Your task to perform on an android device: toggle location history Image 0: 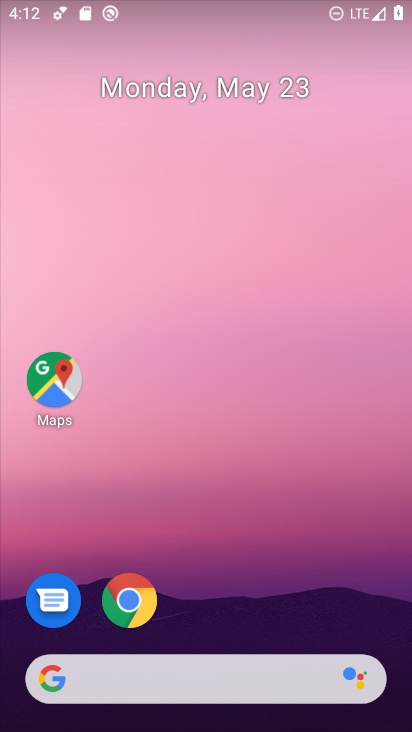
Step 0: click (50, 386)
Your task to perform on an android device: toggle location history Image 1: 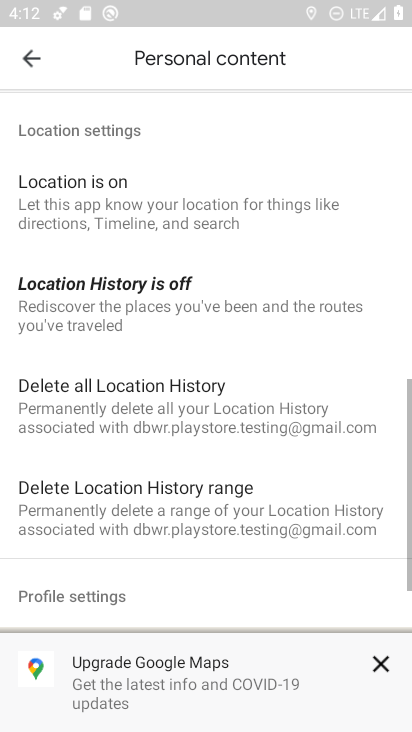
Step 1: click (97, 310)
Your task to perform on an android device: toggle location history Image 2: 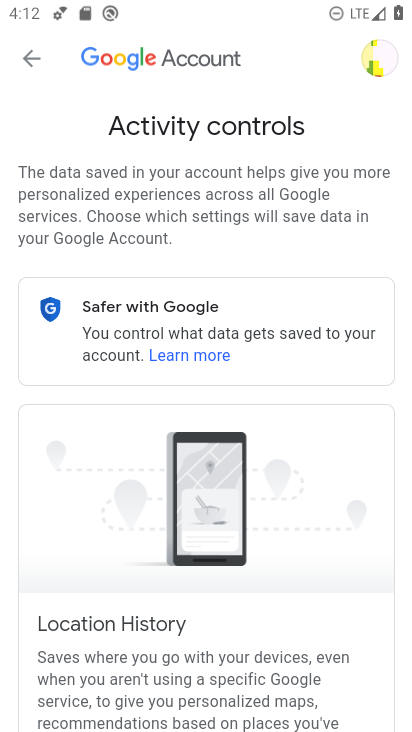
Step 2: drag from (216, 546) to (213, 122)
Your task to perform on an android device: toggle location history Image 3: 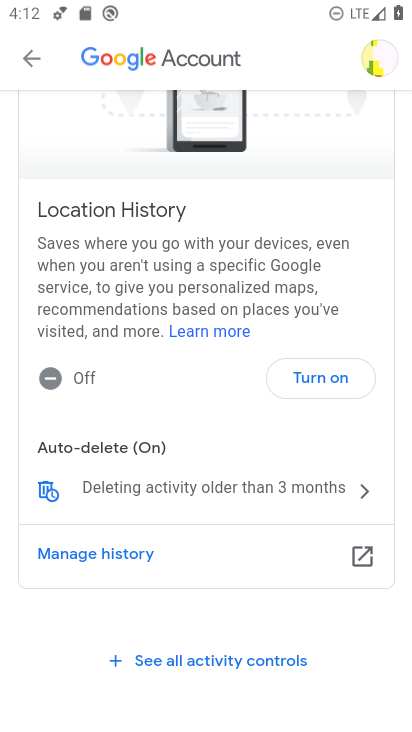
Step 3: click (308, 386)
Your task to perform on an android device: toggle location history Image 4: 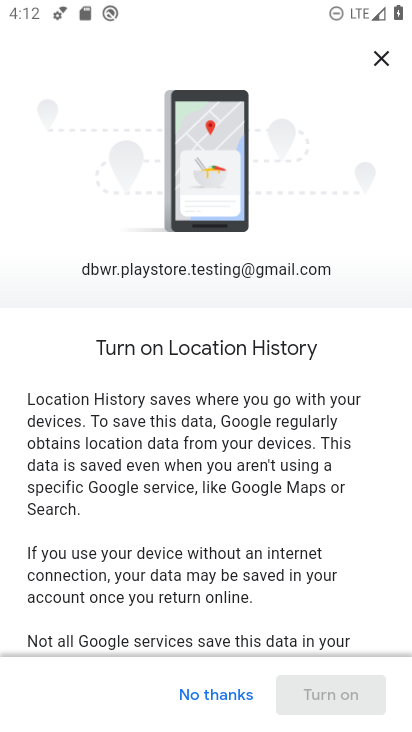
Step 4: drag from (202, 558) to (165, 18)
Your task to perform on an android device: toggle location history Image 5: 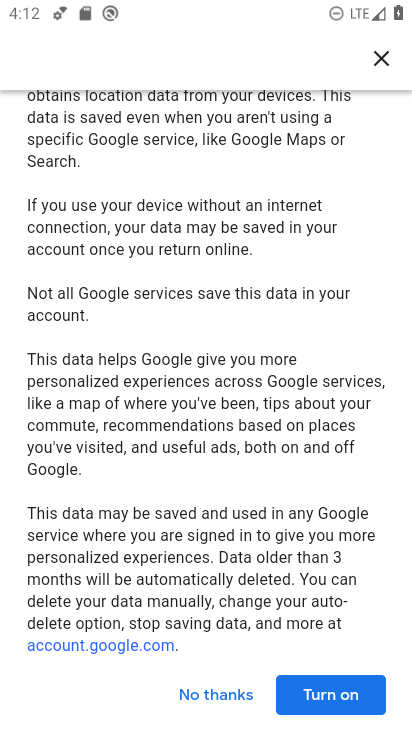
Step 5: click (315, 698)
Your task to perform on an android device: toggle location history Image 6: 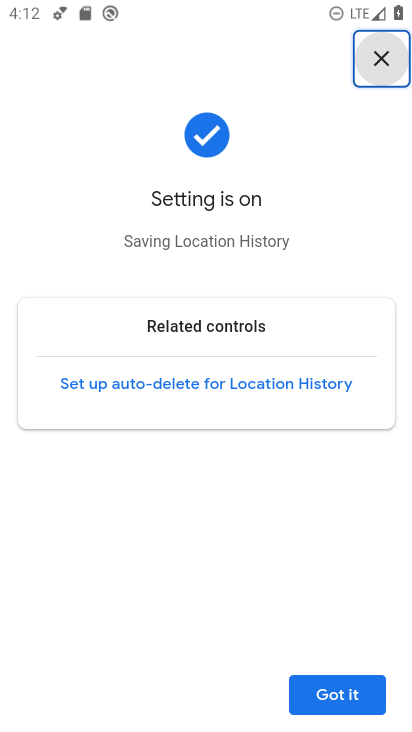
Step 6: click (335, 697)
Your task to perform on an android device: toggle location history Image 7: 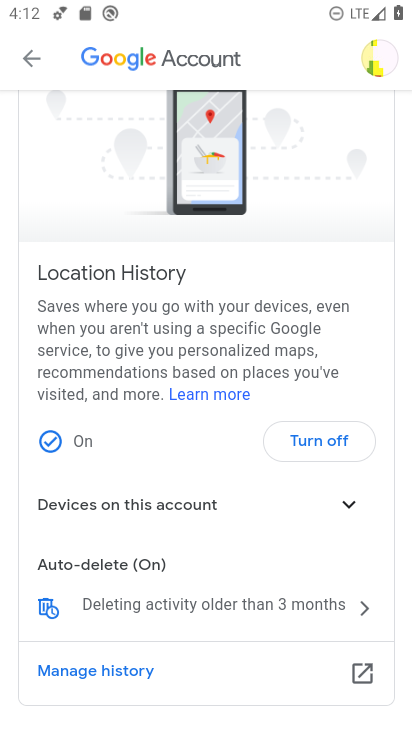
Step 7: task complete